Your task to perform on an android device: turn off priority inbox in the gmail app Image 0: 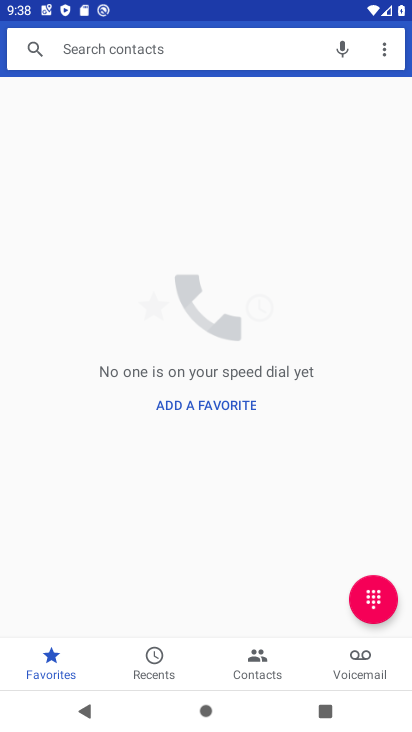
Step 0: press home button
Your task to perform on an android device: turn off priority inbox in the gmail app Image 1: 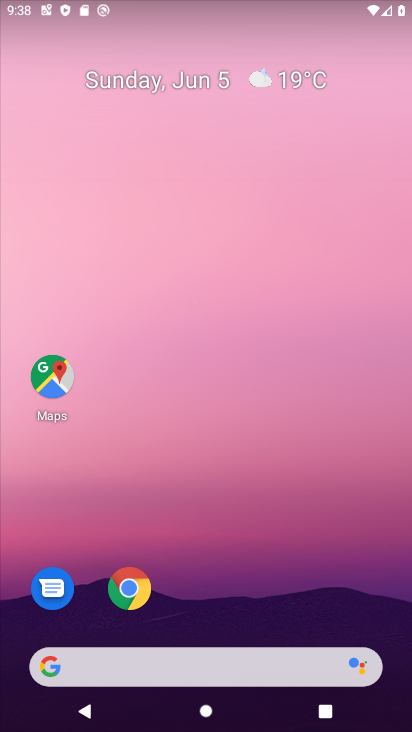
Step 1: drag from (343, 611) to (347, 204)
Your task to perform on an android device: turn off priority inbox in the gmail app Image 2: 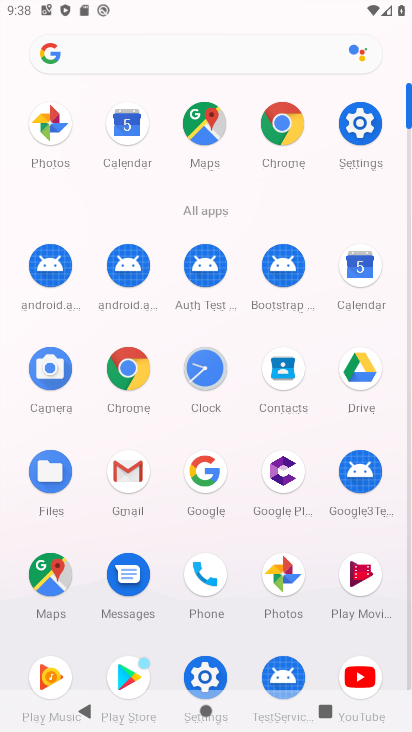
Step 2: click (134, 479)
Your task to perform on an android device: turn off priority inbox in the gmail app Image 3: 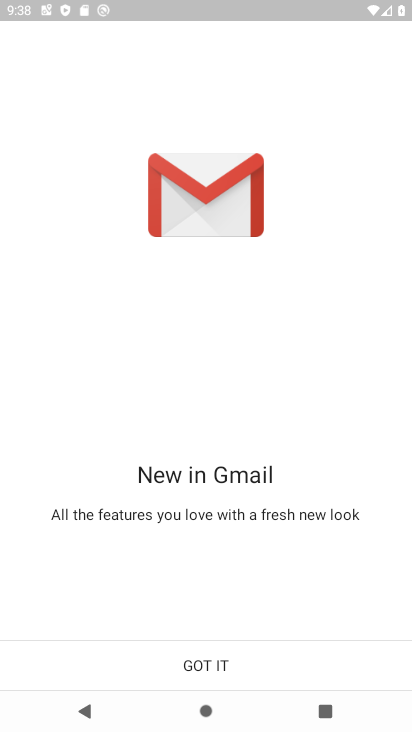
Step 3: click (205, 667)
Your task to perform on an android device: turn off priority inbox in the gmail app Image 4: 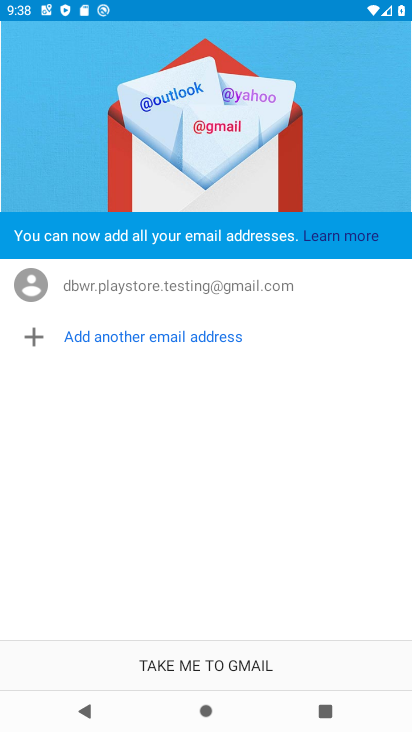
Step 4: click (214, 658)
Your task to perform on an android device: turn off priority inbox in the gmail app Image 5: 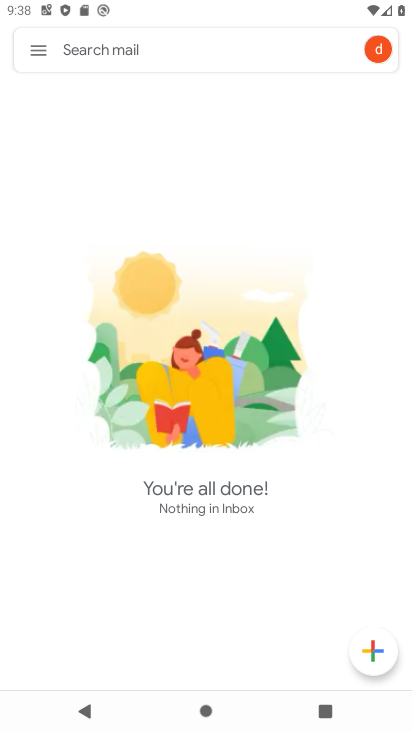
Step 5: click (35, 53)
Your task to perform on an android device: turn off priority inbox in the gmail app Image 6: 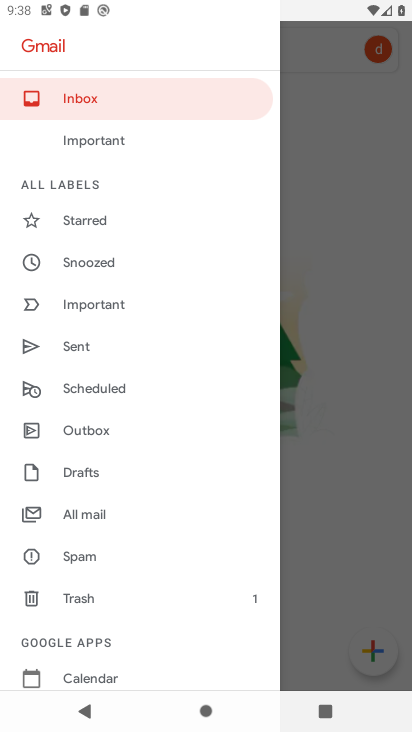
Step 6: drag from (181, 374) to (194, 306)
Your task to perform on an android device: turn off priority inbox in the gmail app Image 7: 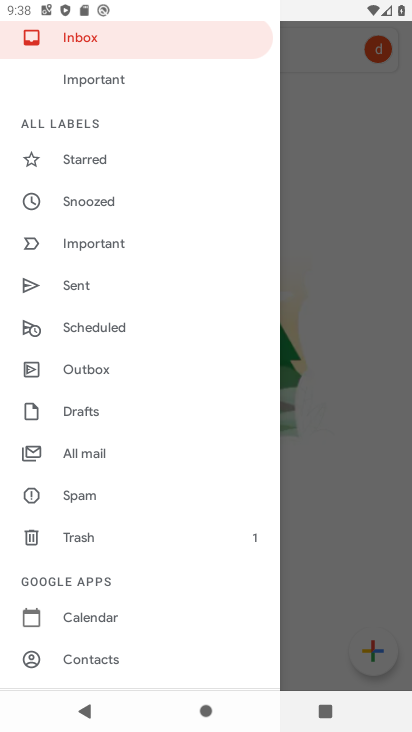
Step 7: drag from (204, 412) to (212, 256)
Your task to perform on an android device: turn off priority inbox in the gmail app Image 8: 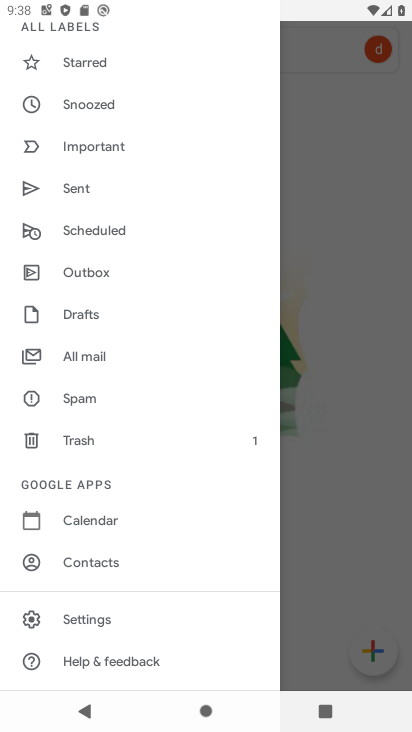
Step 8: drag from (198, 517) to (208, 391)
Your task to perform on an android device: turn off priority inbox in the gmail app Image 9: 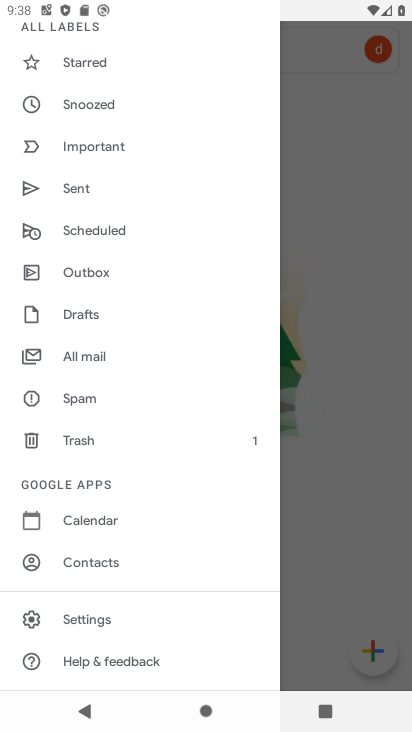
Step 9: click (107, 624)
Your task to perform on an android device: turn off priority inbox in the gmail app Image 10: 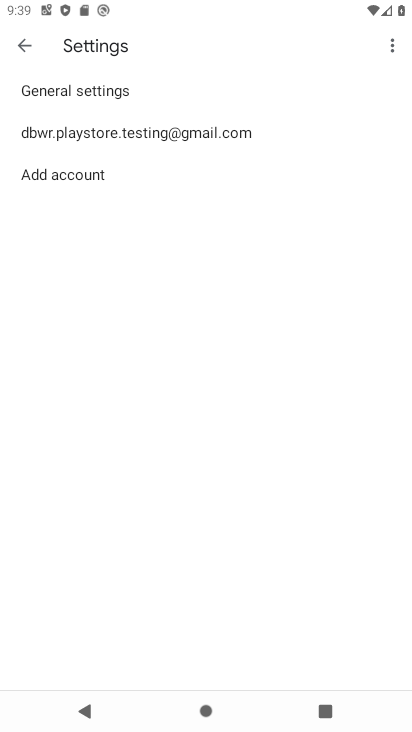
Step 10: click (148, 119)
Your task to perform on an android device: turn off priority inbox in the gmail app Image 11: 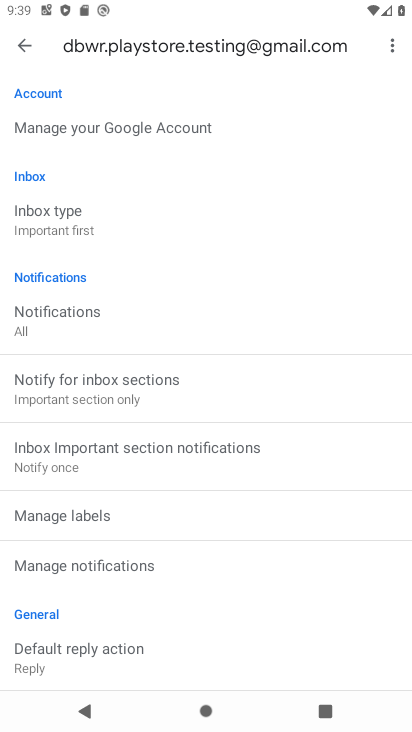
Step 11: drag from (307, 219) to (323, 419)
Your task to perform on an android device: turn off priority inbox in the gmail app Image 12: 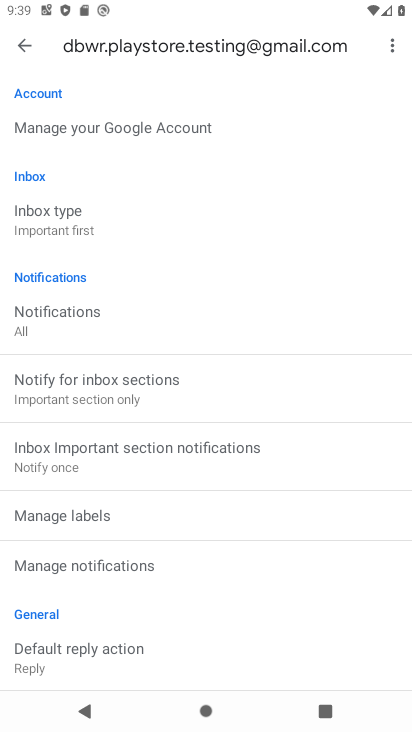
Step 12: drag from (327, 458) to (335, 346)
Your task to perform on an android device: turn off priority inbox in the gmail app Image 13: 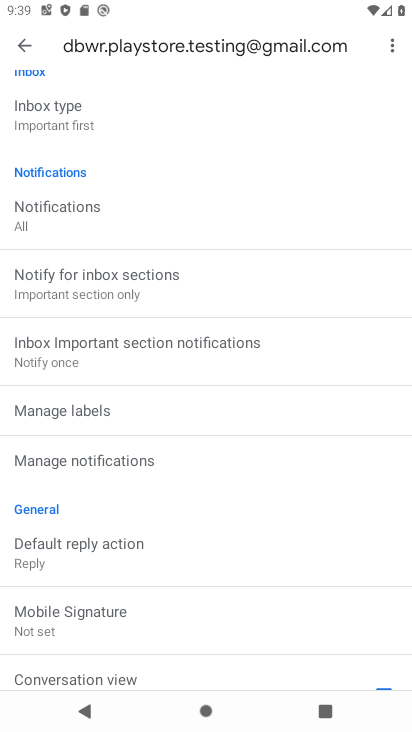
Step 13: drag from (333, 474) to (331, 365)
Your task to perform on an android device: turn off priority inbox in the gmail app Image 14: 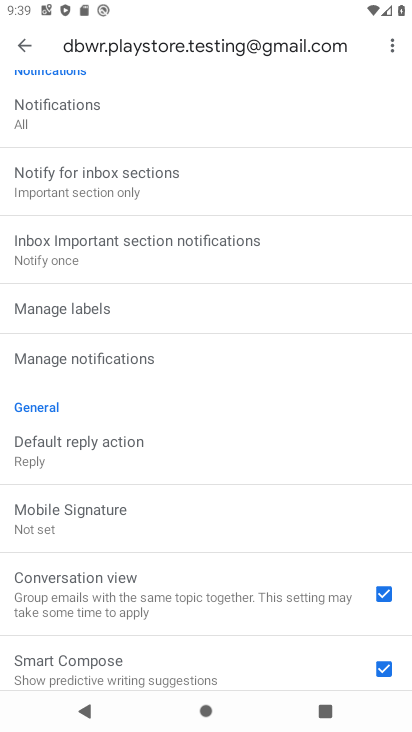
Step 14: drag from (310, 499) to (304, 371)
Your task to perform on an android device: turn off priority inbox in the gmail app Image 15: 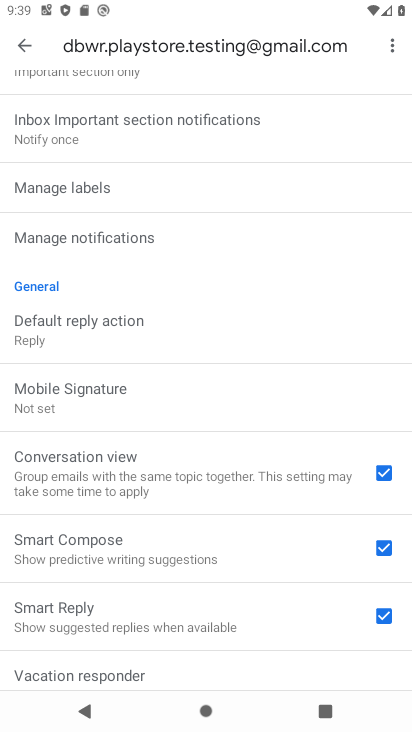
Step 15: drag from (303, 548) to (312, 367)
Your task to perform on an android device: turn off priority inbox in the gmail app Image 16: 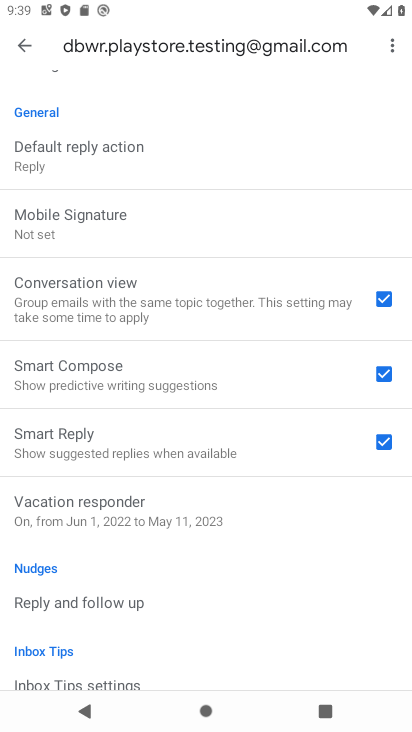
Step 16: drag from (301, 523) to (290, 385)
Your task to perform on an android device: turn off priority inbox in the gmail app Image 17: 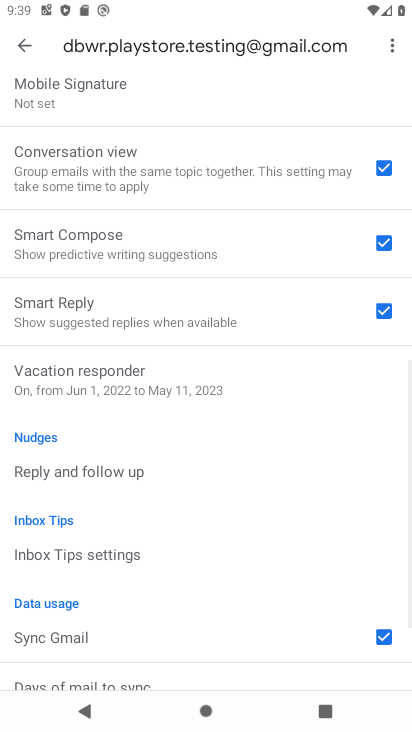
Step 17: drag from (304, 544) to (309, 399)
Your task to perform on an android device: turn off priority inbox in the gmail app Image 18: 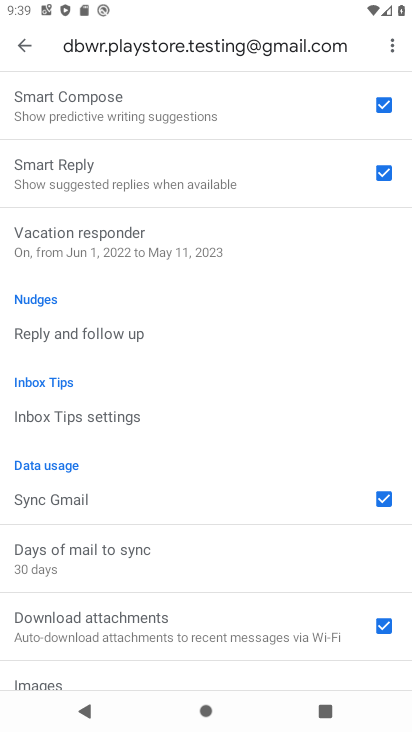
Step 18: drag from (272, 557) to (272, 374)
Your task to perform on an android device: turn off priority inbox in the gmail app Image 19: 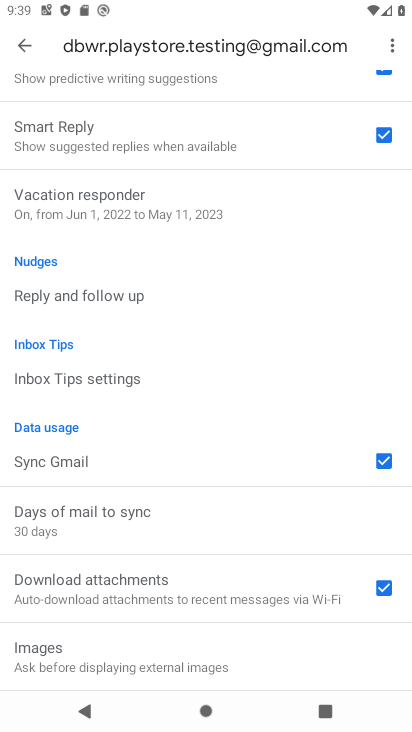
Step 19: drag from (286, 220) to (273, 362)
Your task to perform on an android device: turn off priority inbox in the gmail app Image 20: 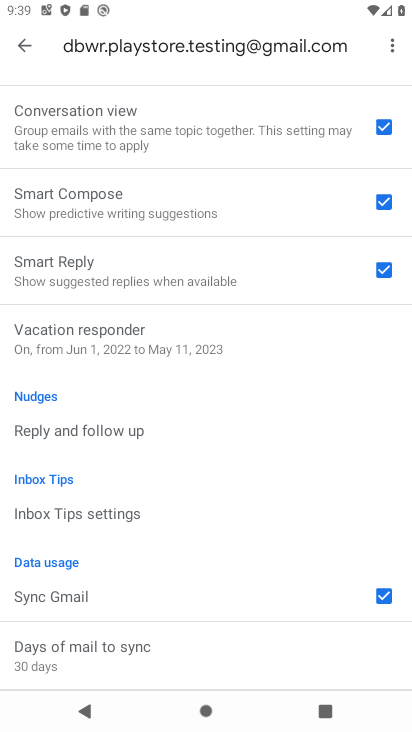
Step 20: drag from (279, 171) to (291, 306)
Your task to perform on an android device: turn off priority inbox in the gmail app Image 21: 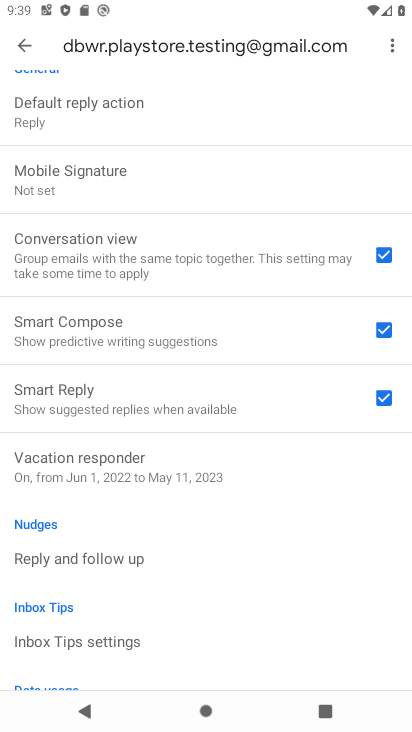
Step 21: drag from (284, 159) to (279, 304)
Your task to perform on an android device: turn off priority inbox in the gmail app Image 22: 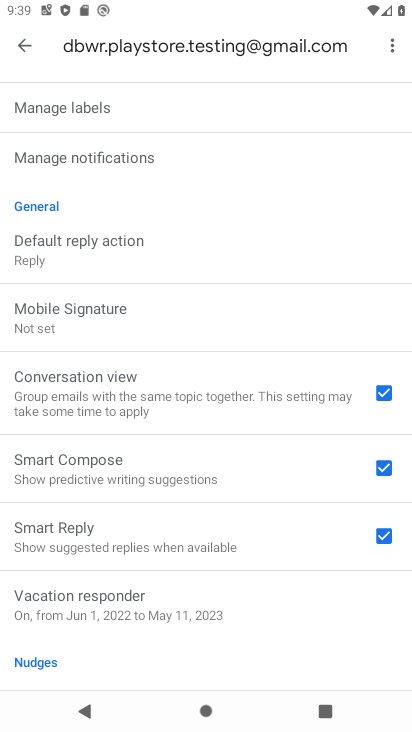
Step 22: drag from (265, 149) to (275, 328)
Your task to perform on an android device: turn off priority inbox in the gmail app Image 23: 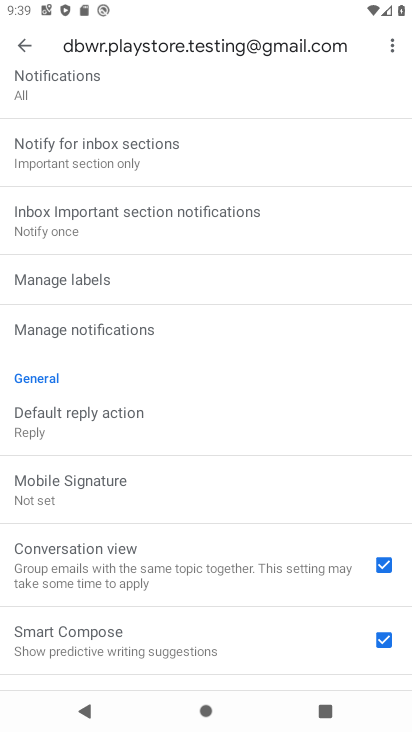
Step 23: drag from (279, 124) to (293, 298)
Your task to perform on an android device: turn off priority inbox in the gmail app Image 24: 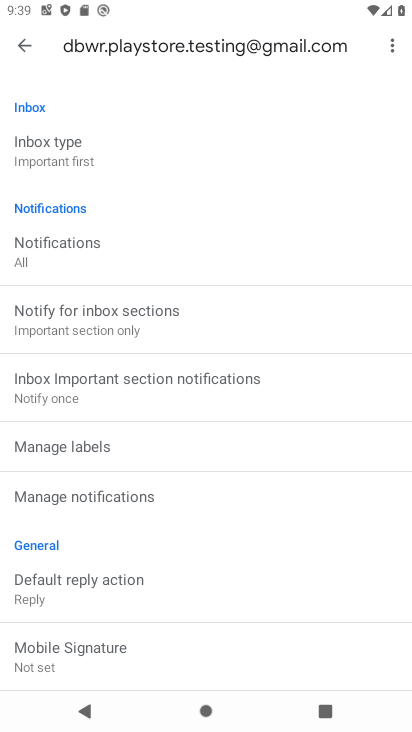
Step 24: drag from (275, 115) to (271, 291)
Your task to perform on an android device: turn off priority inbox in the gmail app Image 25: 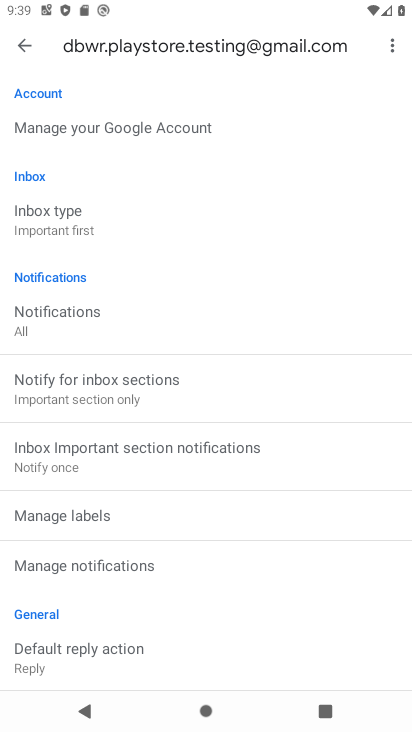
Step 25: click (33, 213)
Your task to perform on an android device: turn off priority inbox in the gmail app Image 26: 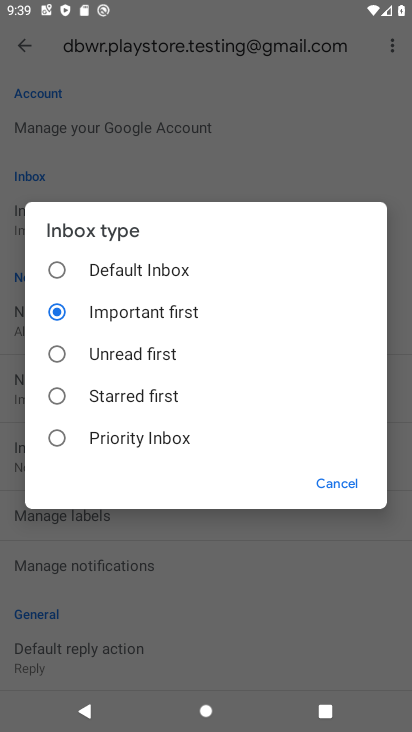
Step 26: task complete